Your task to perform on an android device: make emails show in primary in the gmail app Image 0: 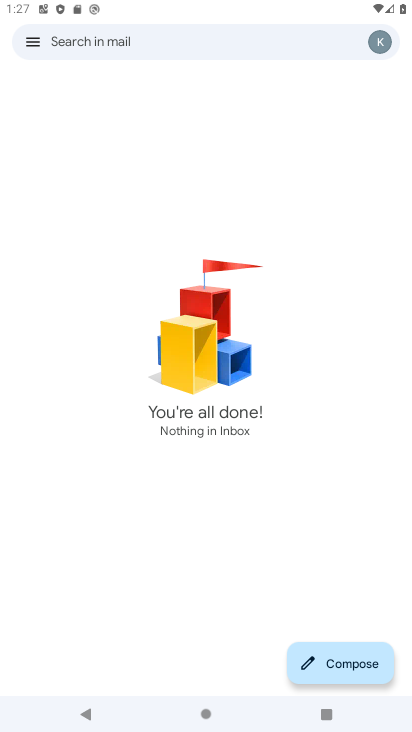
Step 0: task complete